Your task to perform on an android device: Do I have any events today? Image 0: 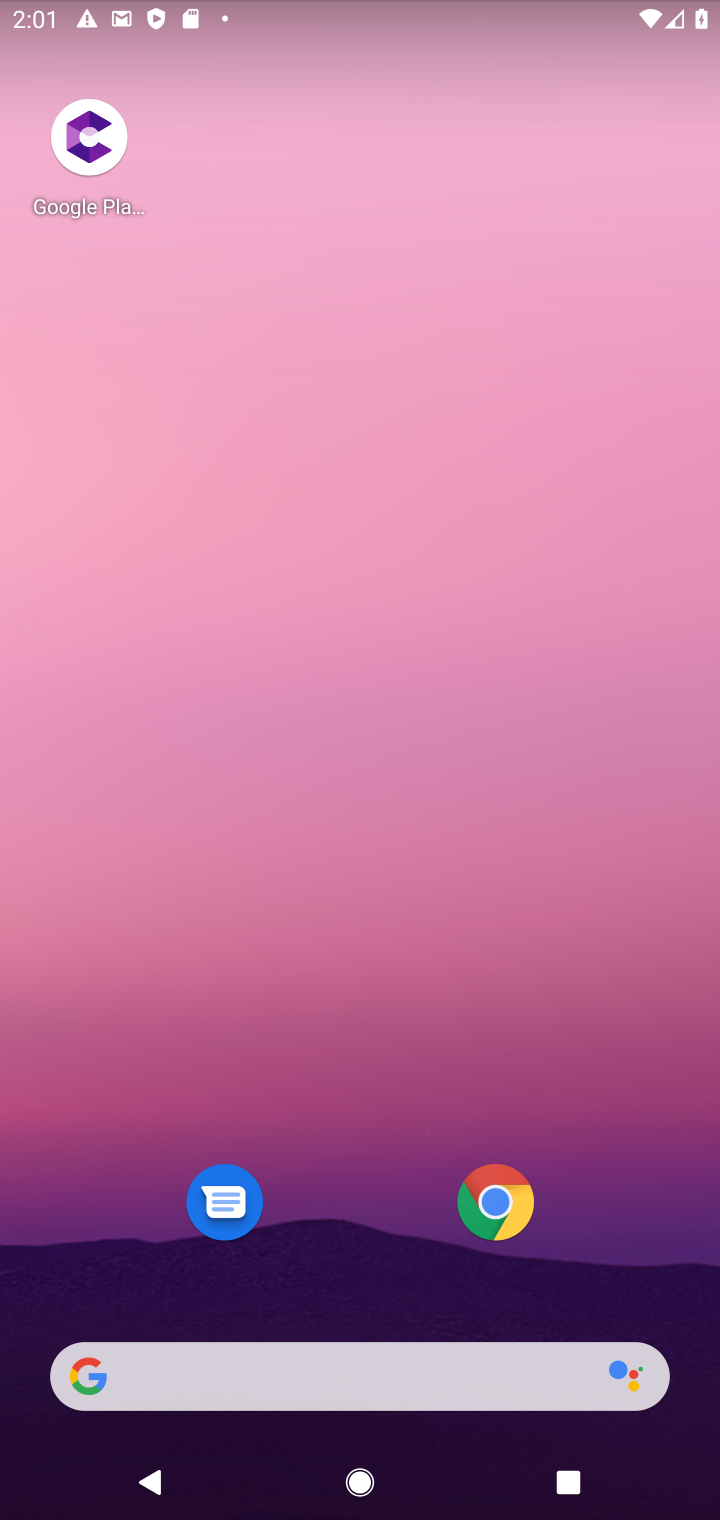
Step 0: click (377, 38)
Your task to perform on an android device: Do I have any events today? Image 1: 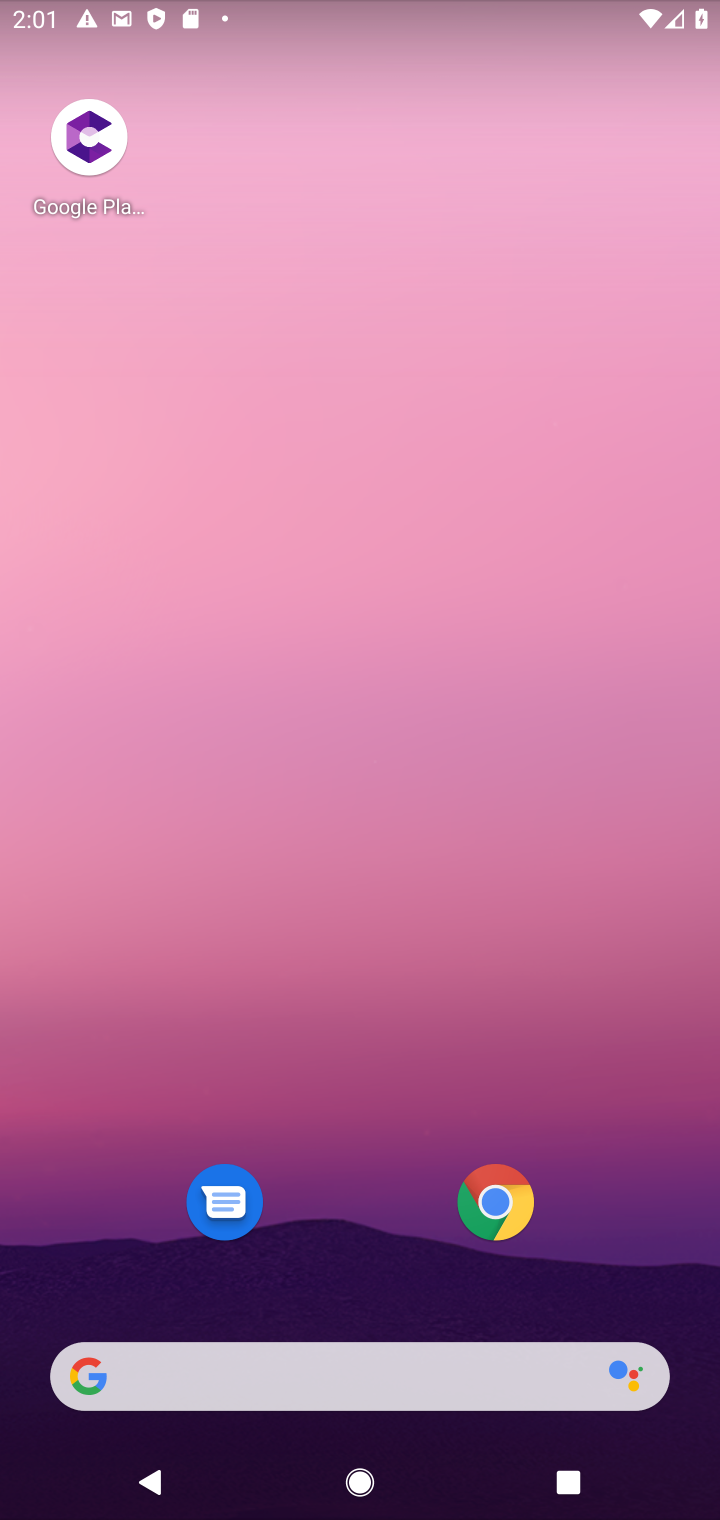
Step 1: drag from (319, 1087) to (273, 257)
Your task to perform on an android device: Do I have any events today? Image 2: 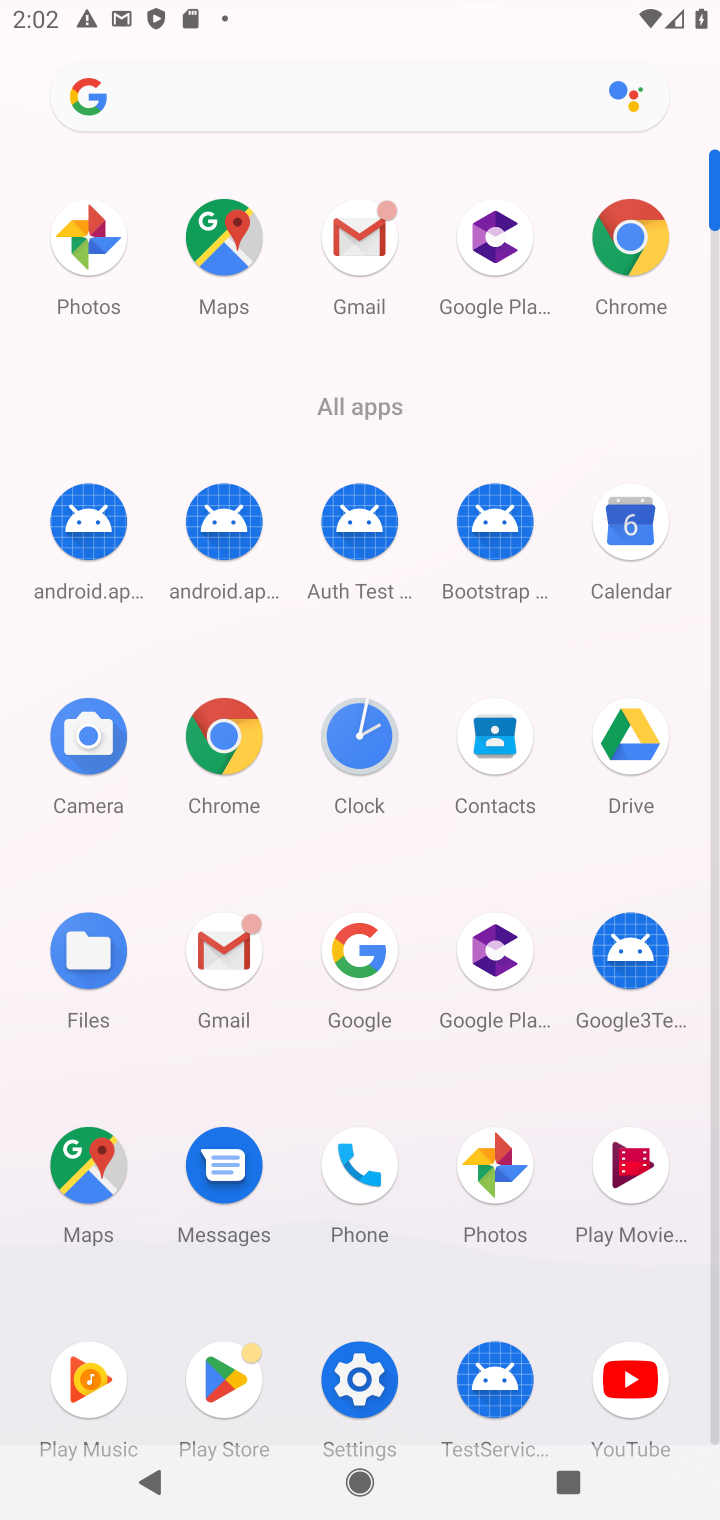
Step 2: click (618, 555)
Your task to perform on an android device: Do I have any events today? Image 3: 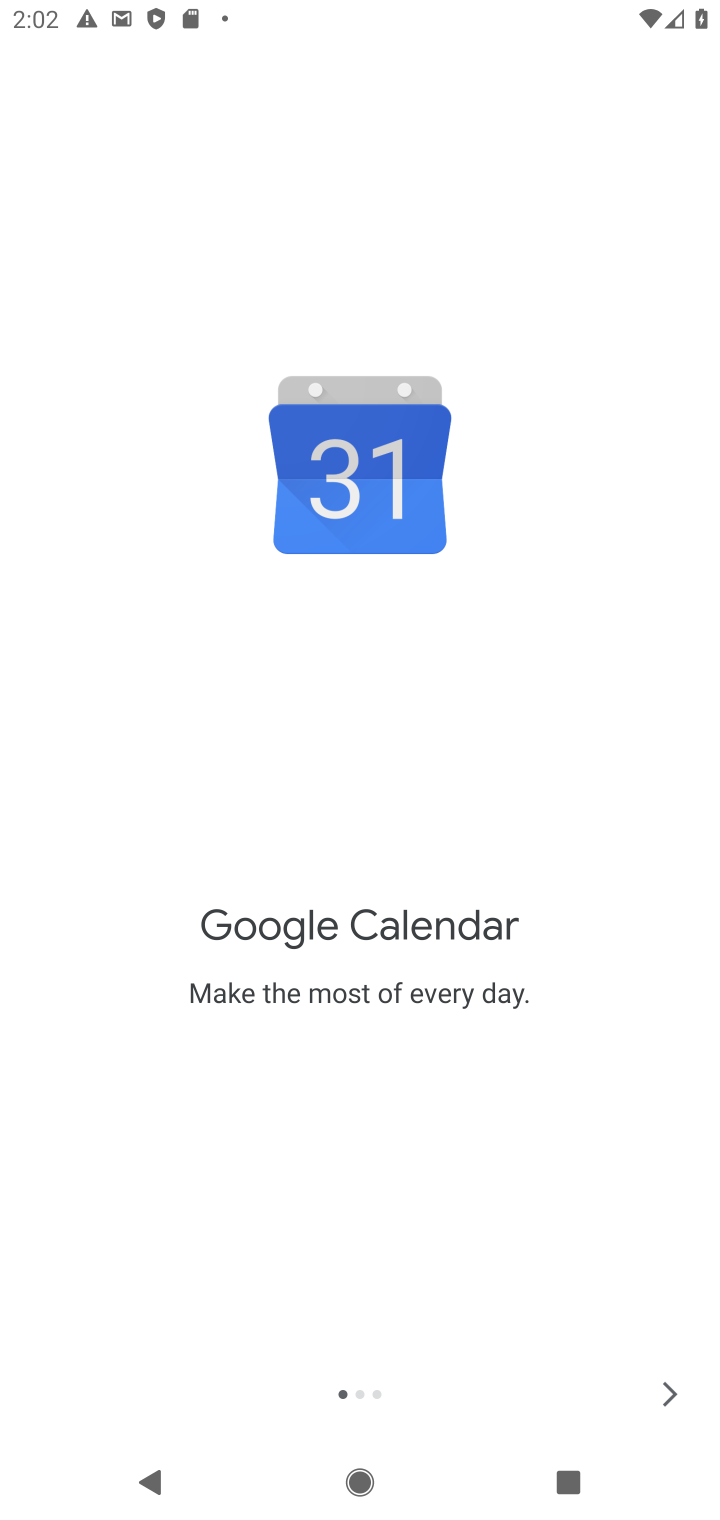
Step 3: click (671, 1389)
Your task to perform on an android device: Do I have any events today? Image 4: 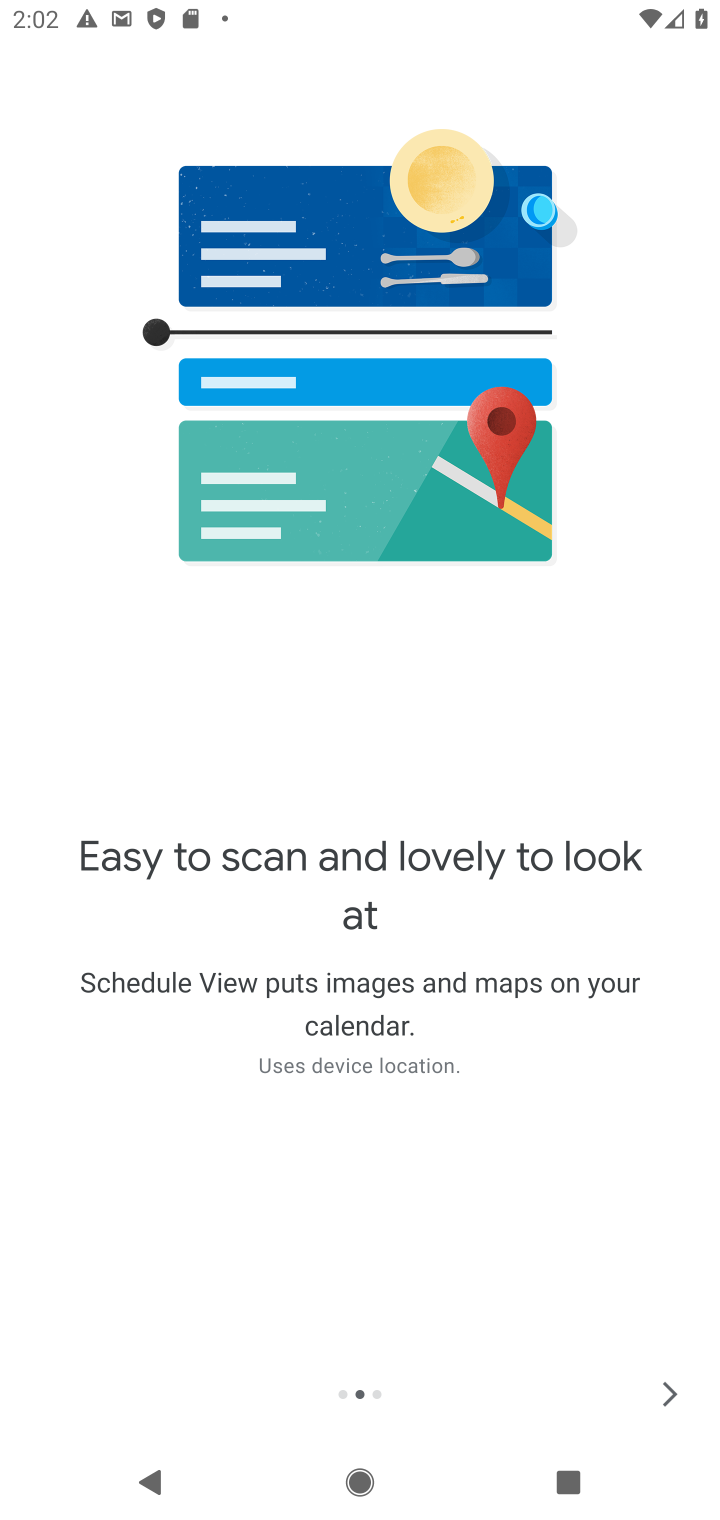
Step 4: click (671, 1389)
Your task to perform on an android device: Do I have any events today? Image 5: 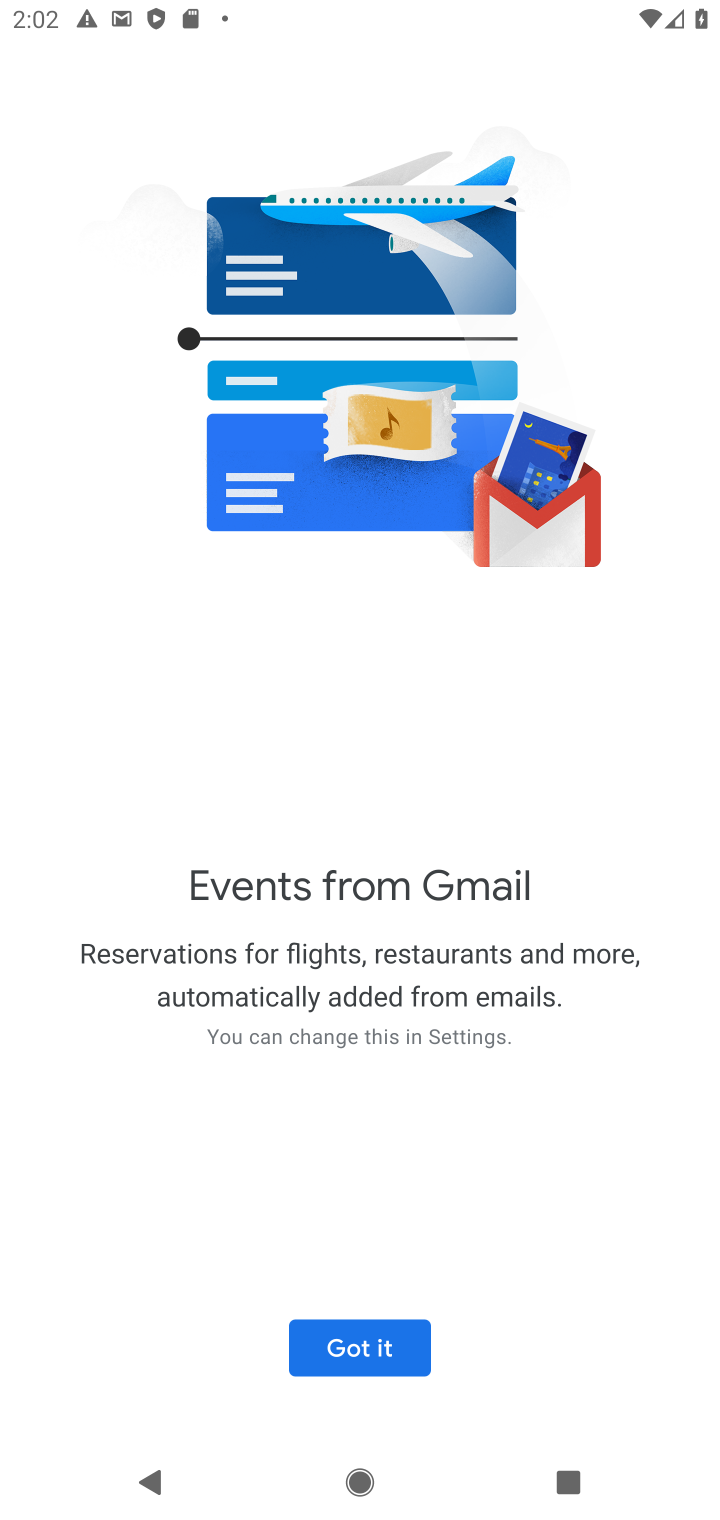
Step 5: click (360, 1352)
Your task to perform on an android device: Do I have any events today? Image 6: 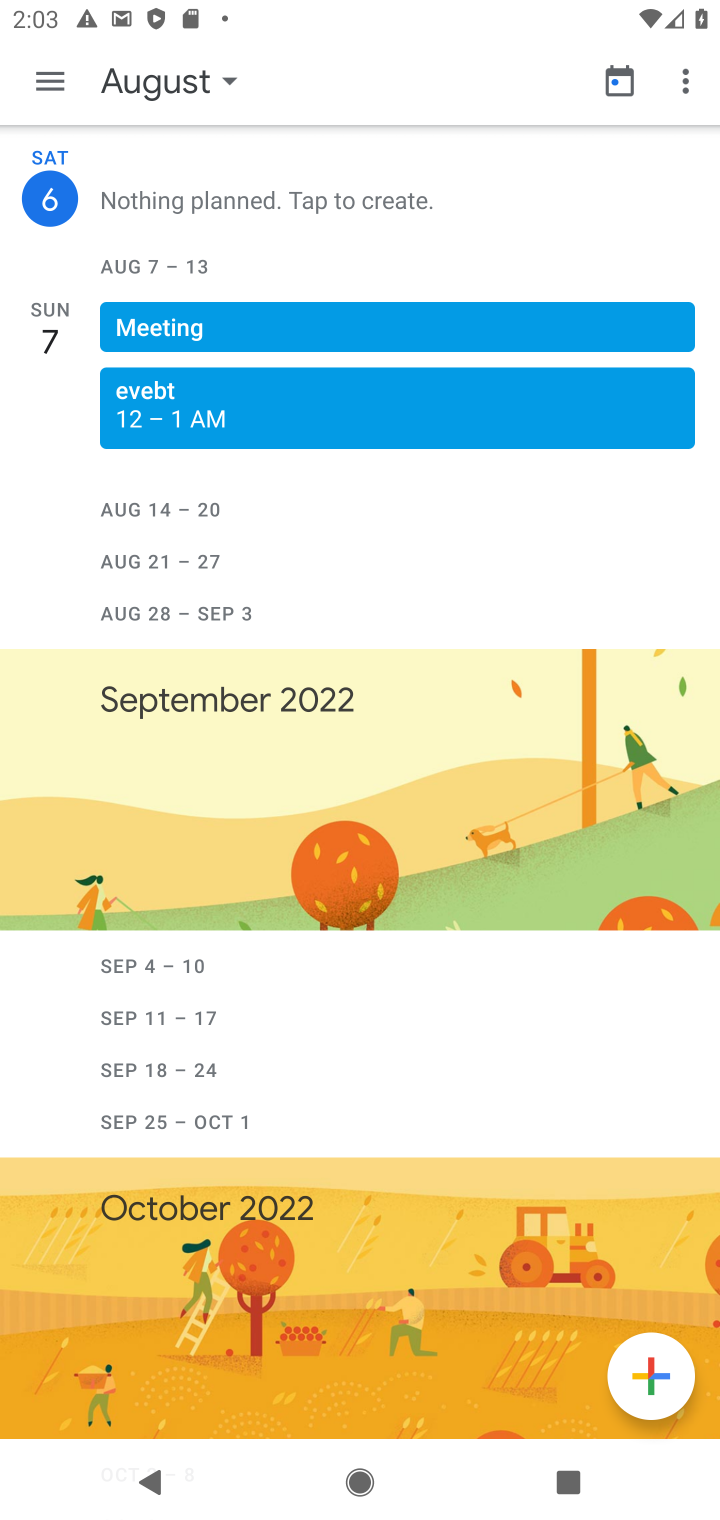
Step 6: task complete